Your task to perform on an android device: Open Maps and search for coffee Image 0: 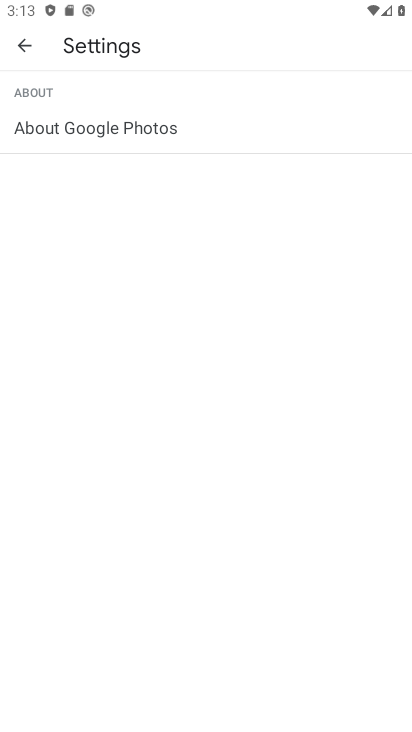
Step 0: press home button
Your task to perform on an android device: Open Maps and search for coffee Image 1: 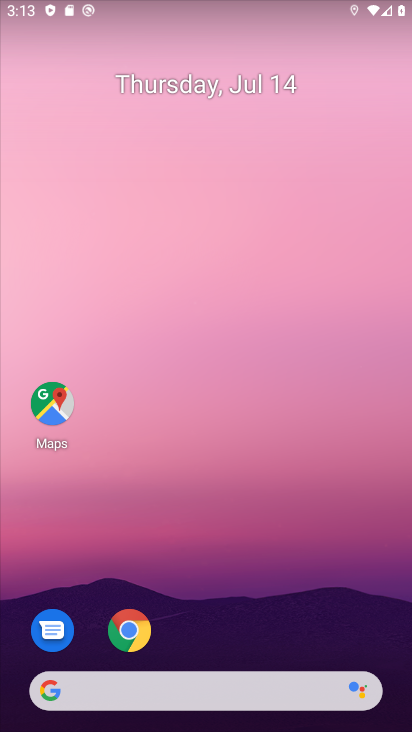
Step 1: click (49, 398)
Your task to perform on an android device: Open Maps and search for coffee Image 2: 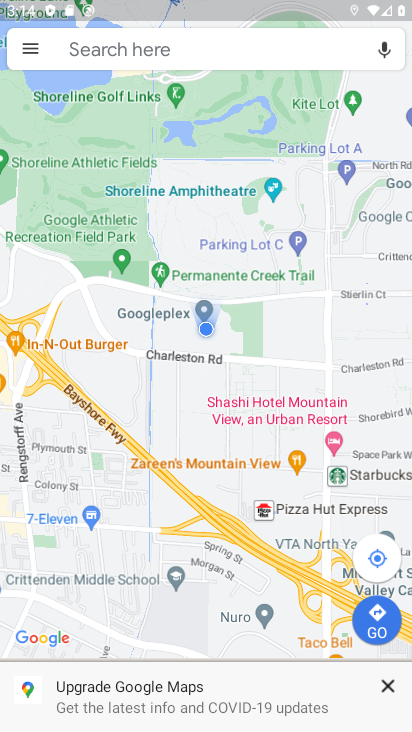
Step 2: click (198, 52)
Your task to perform on an android device: Open Maps and search for coffee Image 3: 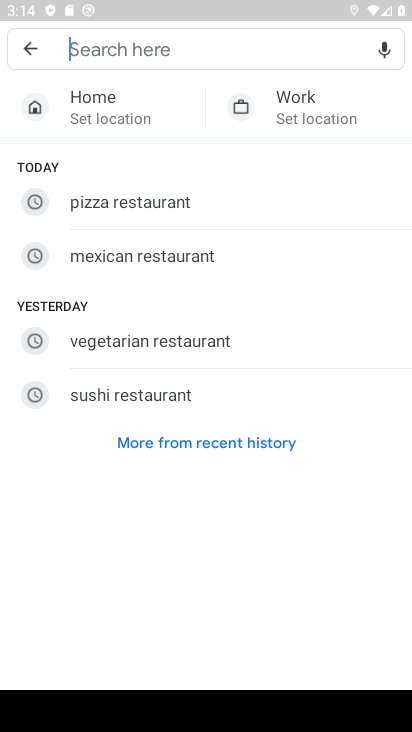
Step 3: type "coffee"
Your task to perform on an android device: Open Maps and search for coffee Image 4: 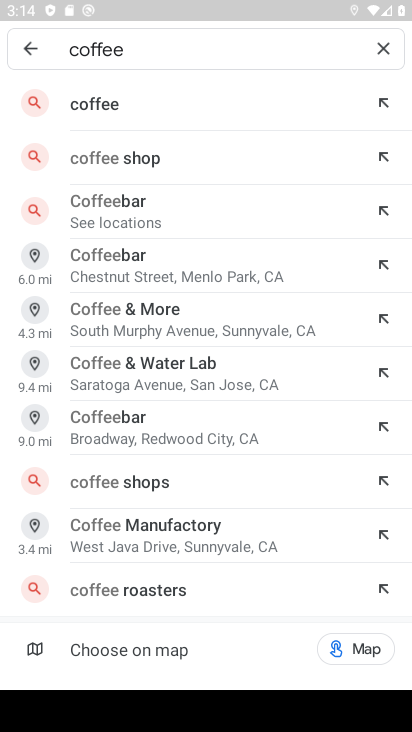
Step 4: click (123, 107)
Your task to perform on an android device: Open Maps and search for coffee Image 5: 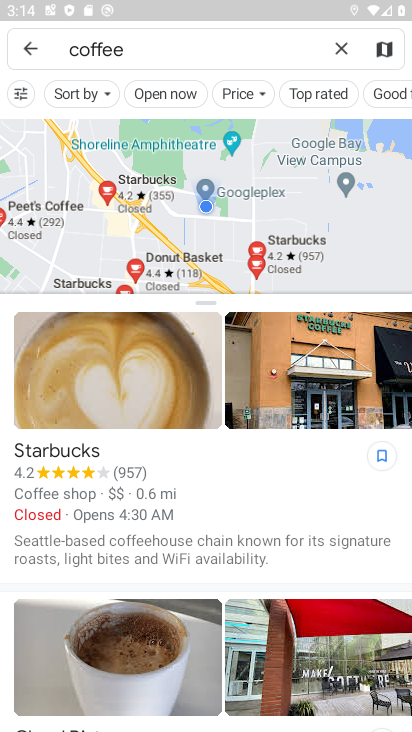
Step 5: task complete